Your task to perform on an android device: stop showing notifications on the lock screen Image 0: 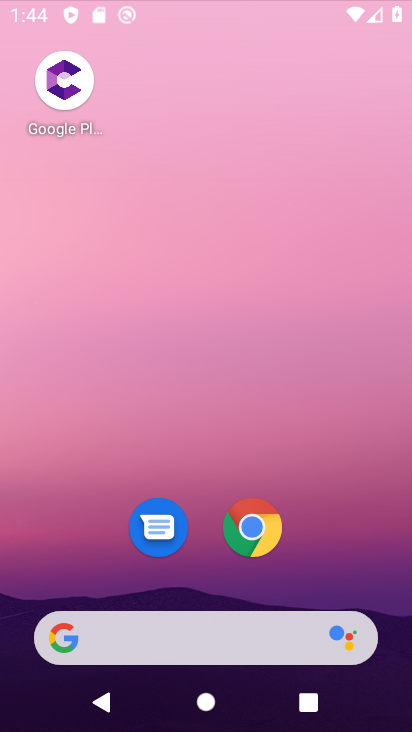
Step 0: press home button
Your task to perform on an android device: stop showing notifications on the lock screen Image 1: 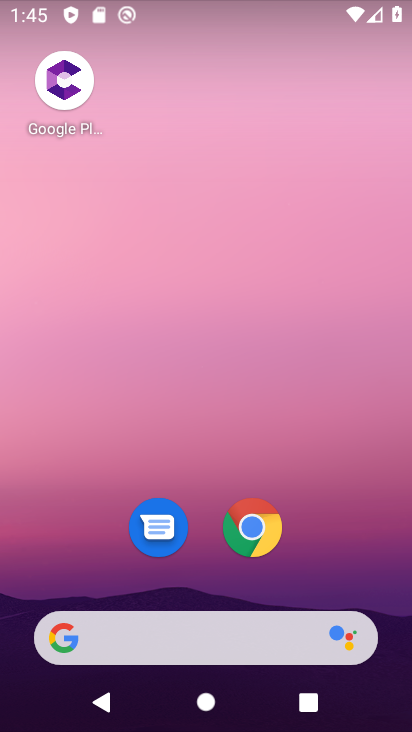
Step 1: click (247, 530)
Your task to perform on an android device: stop showing notifications on the lock screen Image 2: 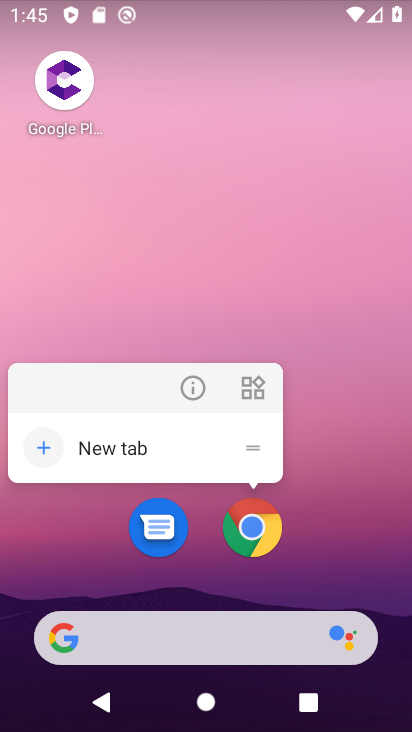
Step 2: drag from (227, 306) to (227, 183)
Your task to perform on an android device: stop showing notifications on the lock screen Image 3: 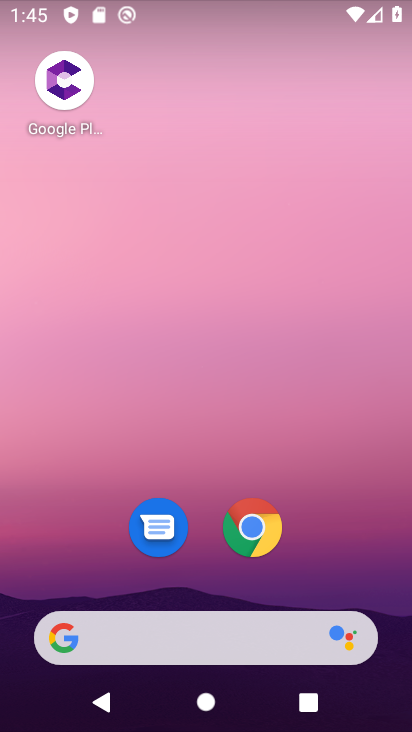
Step 3: drag from (180, 608) to (220, 84)
Your task to perform on an android device: stop showing notifications on the lock screen Image 4: 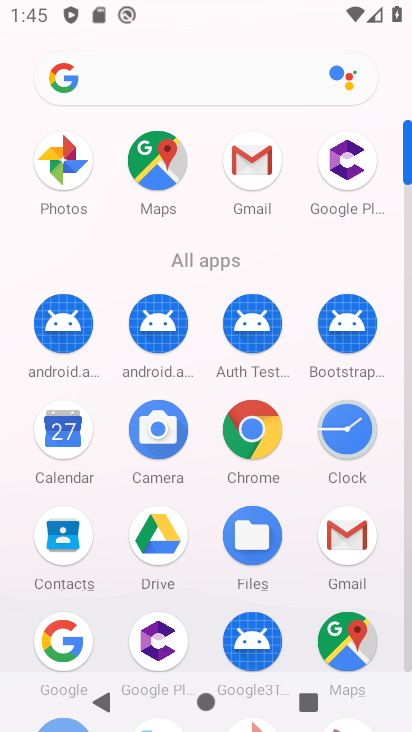
Step 4: drag from (190, 604) to (185, 129)
Your task to perform on an android device: stop showing notifications on the lock screen Image 5: 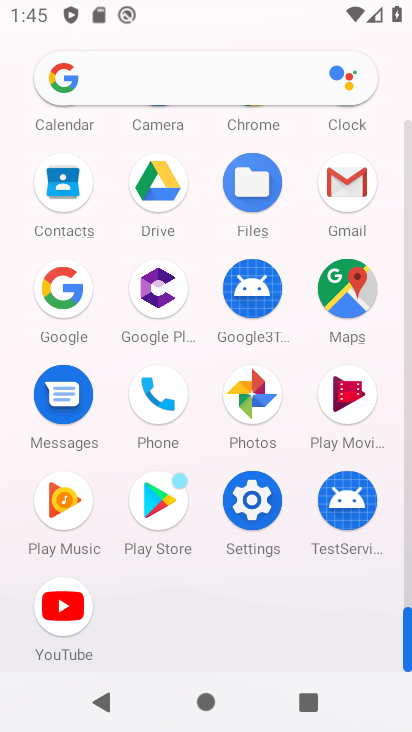
Step 5: click (239, 507)
Your task to perform on an android device: stop showing notifications on the lock screen Image 6: 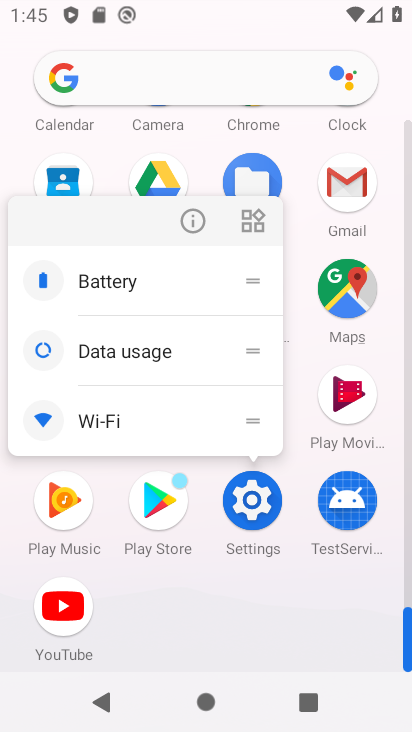
Step 6: click (245, 508)
Your task to perform on an android device: stop showing notifications on the lock screen Image 7: 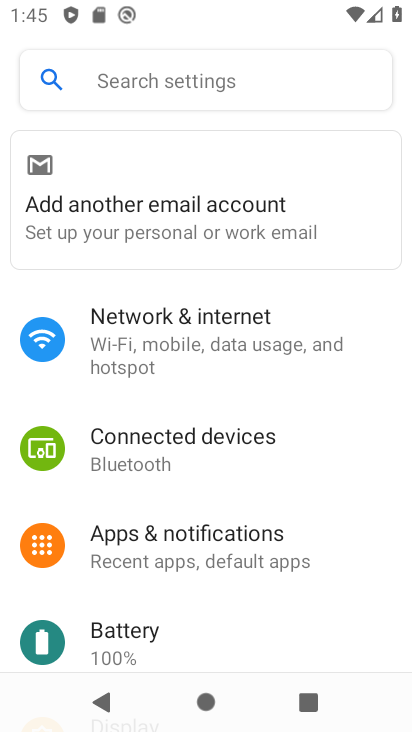
Step 7: drag from (180, 643) to (203, 240)
Your task to perform on an android device: stop showing notifications on the lock screen Image 8: 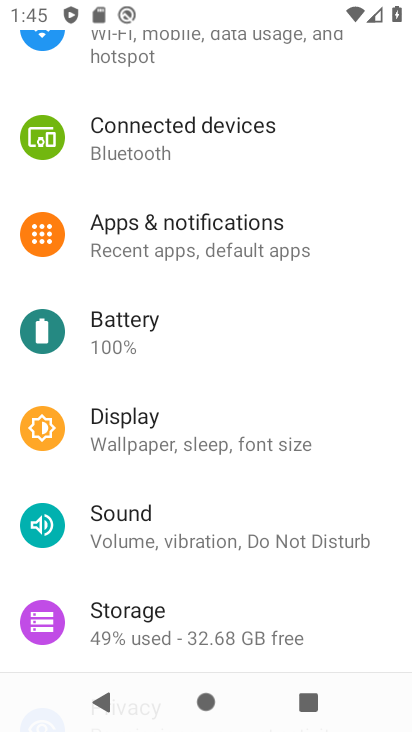
Step 8: drag from (167, 628) to (151, 184)
Your task to perform on an android device: stop showing notifications on the lock screen Image 9: 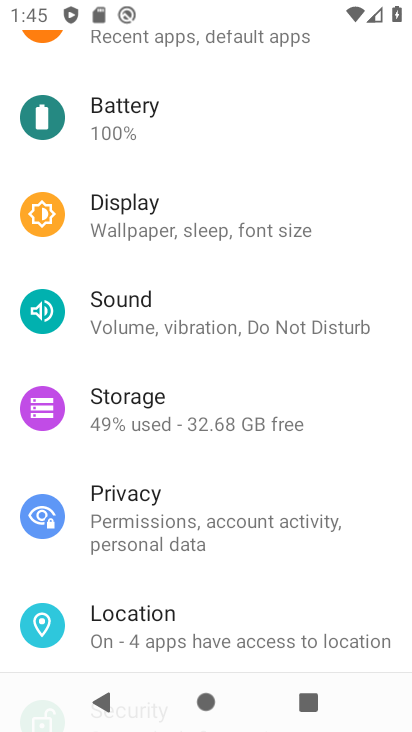
Step 9: click (242, 137)
Your task to perform on an android device: stop showing notifications on the lock screen Image 10: 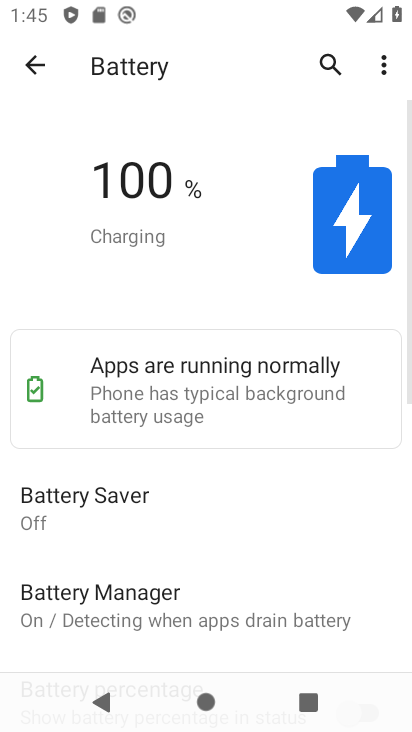
Step 10: click (28, 63)
Your task to perform on an android device: stop showing notifications on the lock screen Image 11: 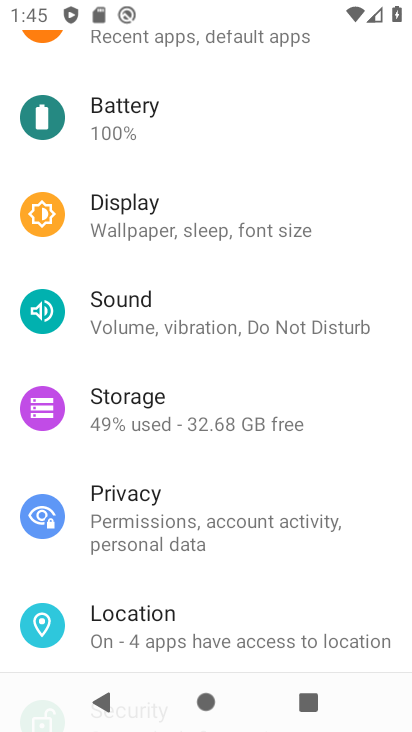
Step 11: click (156, 531)
Your task to perform on an android device: stop showing notifications on the lock screen Image 12: 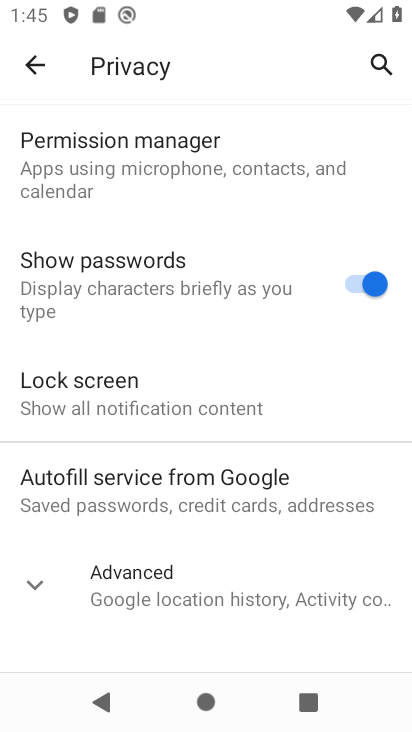
Step 12: click (163, 593)
Your task to perform on an android device: stop showing notifications on the lock screen Image 13: 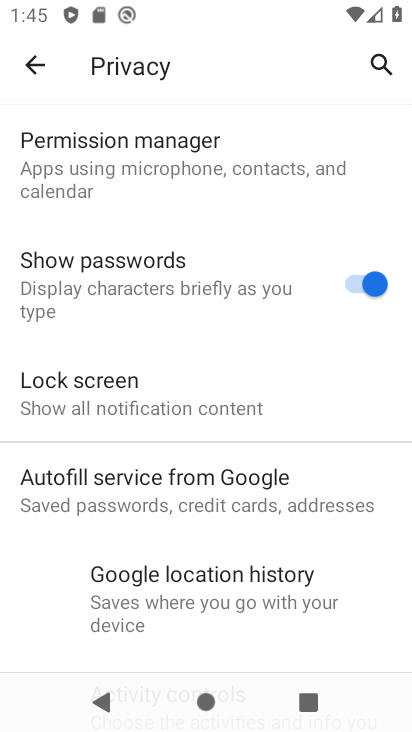
Step 13: drag from (173, 637) to (168, 220)
Your task to perform on an android device: stop showing notifications on the lock screen Image 14: 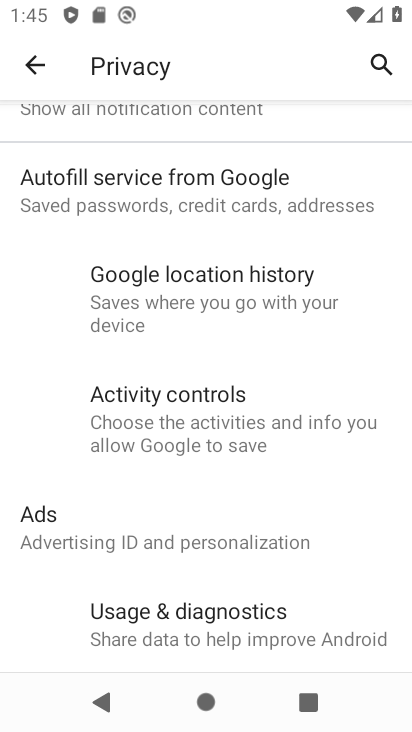
Step 14: drag from (199, 159) to (202, 569)
Your task to perform on an android device: stop showing notifications on the lock screen Image 15: 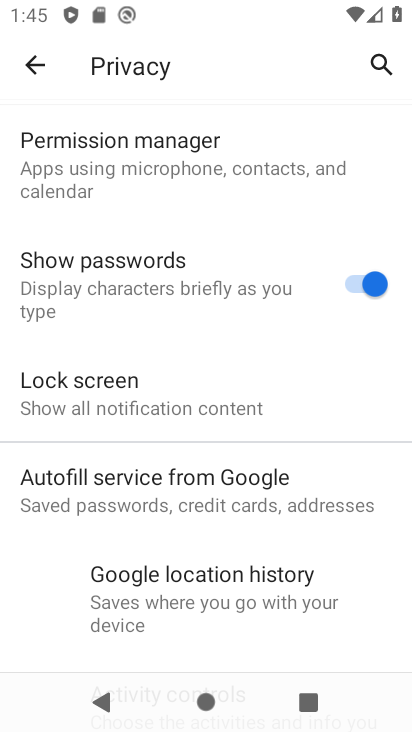
Step 15: click (140, 405)
Your task to perform on an android device: stop showing notifications on the lock screen Image 16: 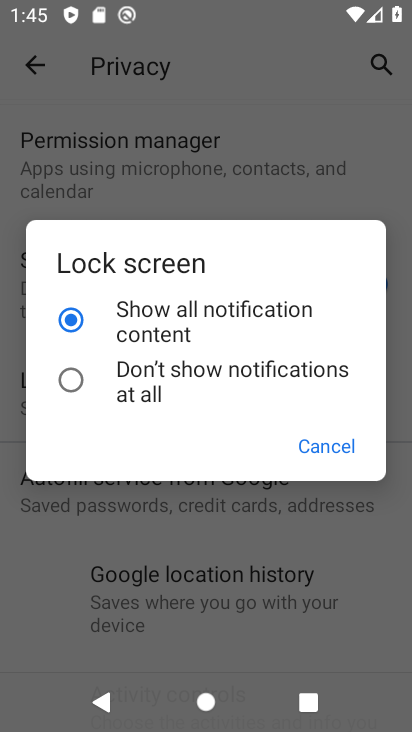
Step 16: click (166, 369)
Your task to perform on an android device: stop showing notifications on the lock screen Image 17: 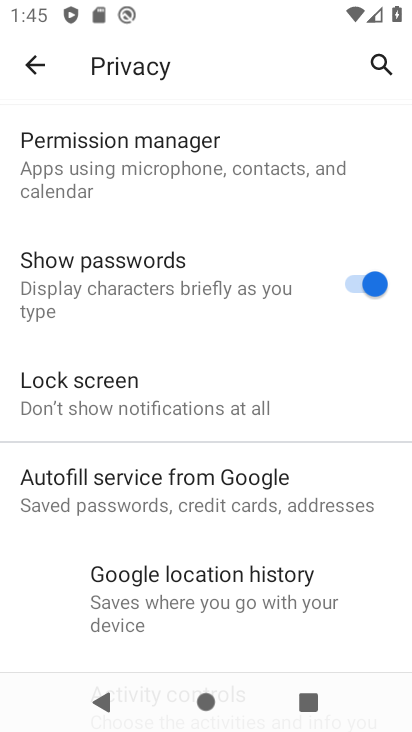
Step 17: task complete